Your task to perform on an android device: change keyboard looks Image 0: 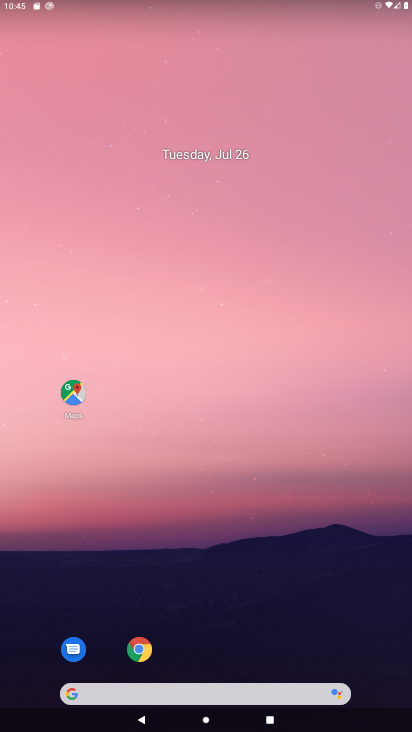
Step 0: drag from (209, 680) to (210, 148)
Your task to perform on an android device: change keyboard looks Image 1: 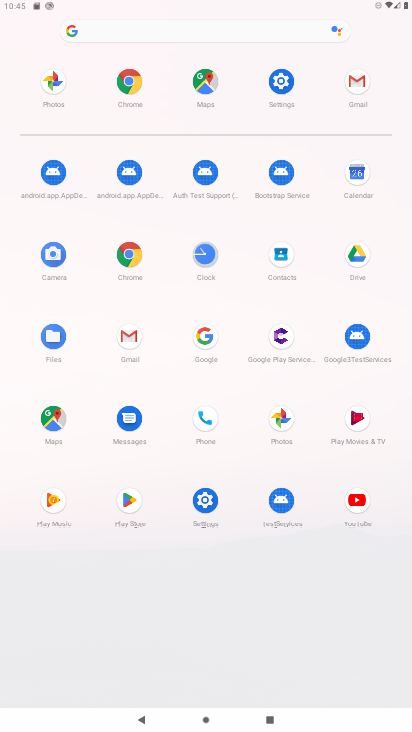
Step 1: click (275, 87)
Your task to perform on an android device: change keyboard looks Image 2: 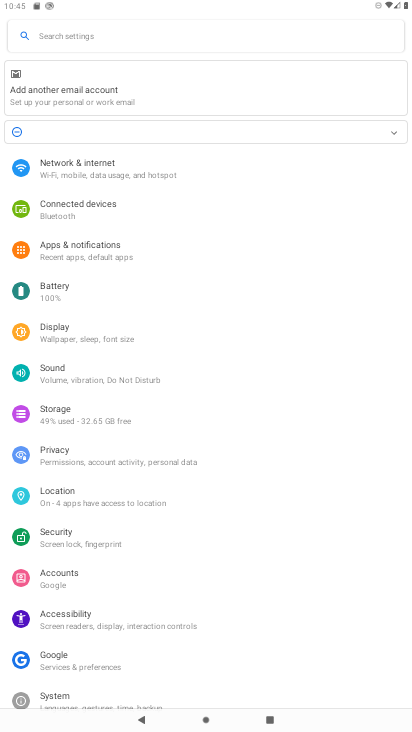
Step 2: drag from (86, 693) to (105, 235)
Your task to perform on an android device: change keyboard looks Image 3: 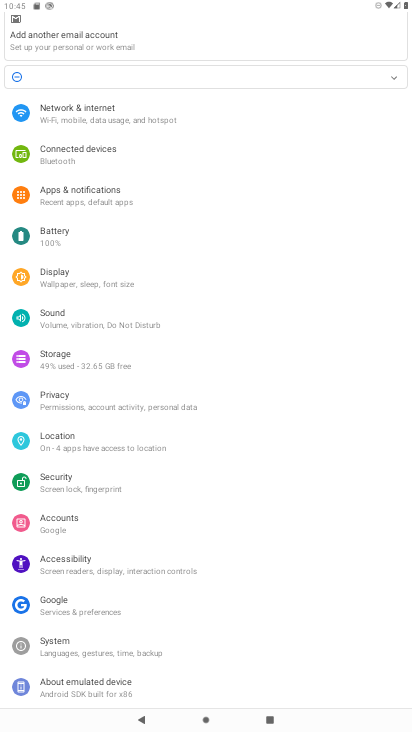
Step 3: click (70, 642)
Your task to perform on an android device: change keyboard looks Image 4: 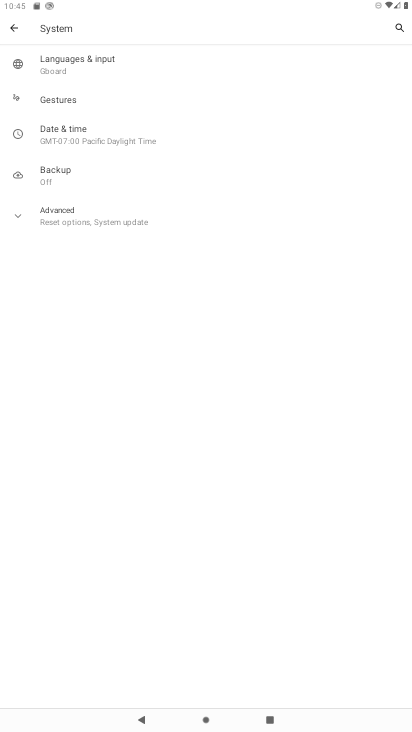
Step 4: click (56, 216)
Your task to perform on an android device: change keyboard looks Image 5: 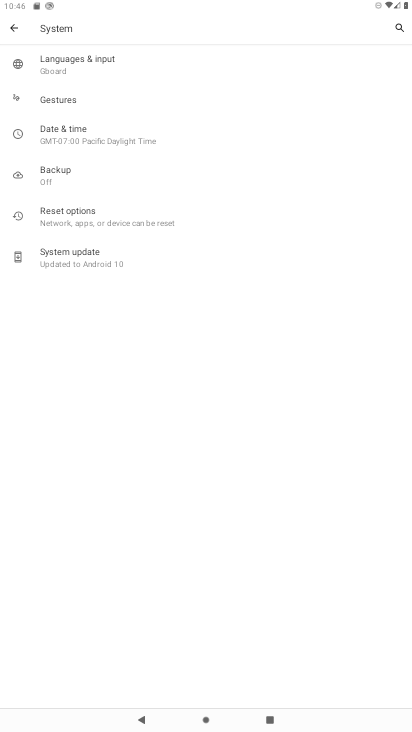
Step 5: click (49, 70)
Your task to perform on an android device: change keyboard looks Image 6: 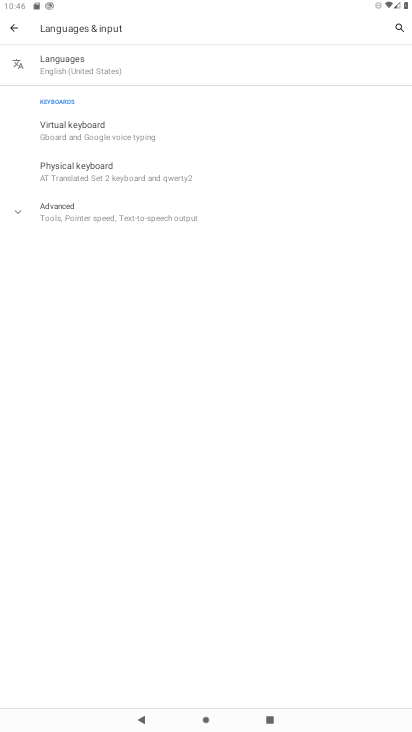
Step 6: click (88, 128)
Your task to perform on an android device: change keyboard looks Image 7: 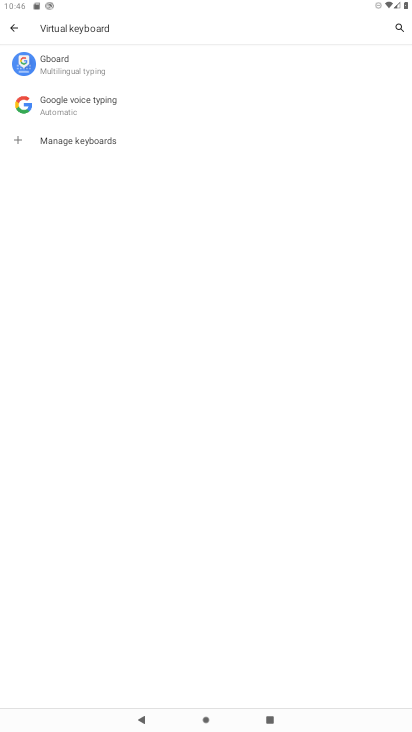
Step 7: click (55, 72)
Your task to perform on an android device: change keyboard looks Image 8: 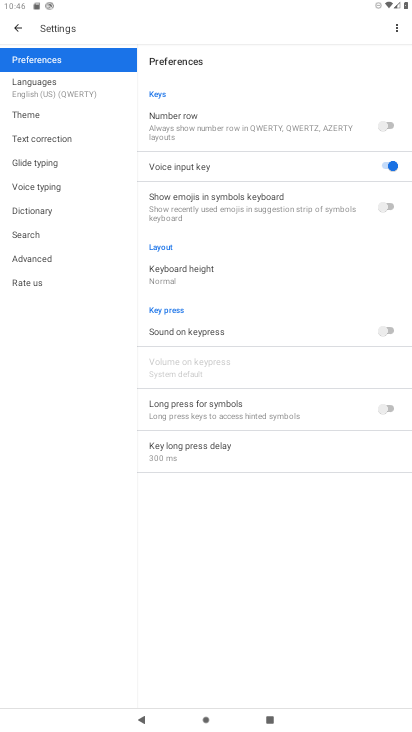
Step 8: click (31, 118)
Your task to perform on an android device: change keyboard looks Image 9: 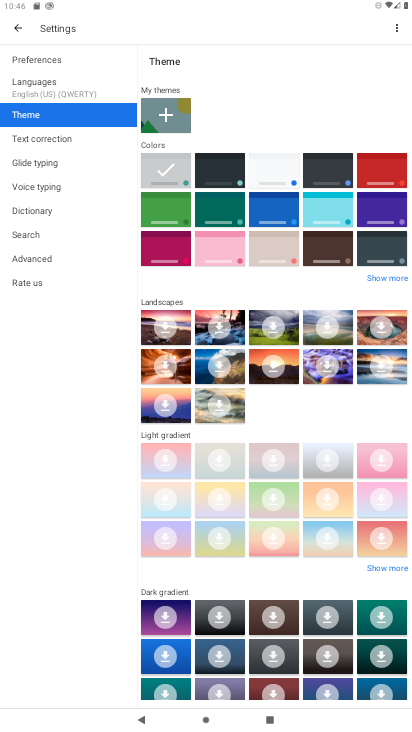
Step 9: click (339, 252)
Your task to perform on an android device: change keyboard looks Image 10: 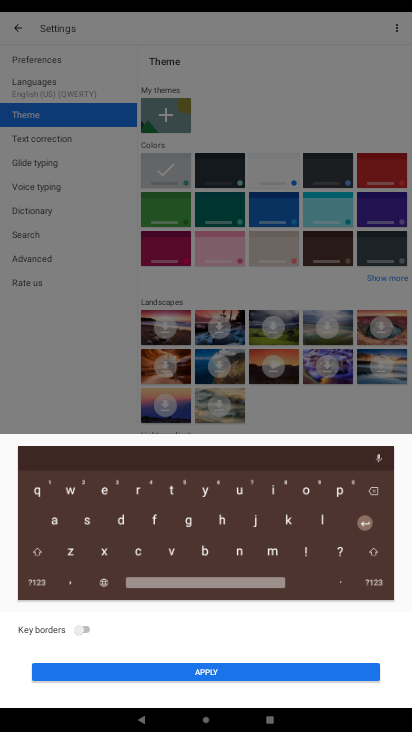
Step 10: click (200, 667)
Your task to perform on an android device: change keyboard looks Image 11: 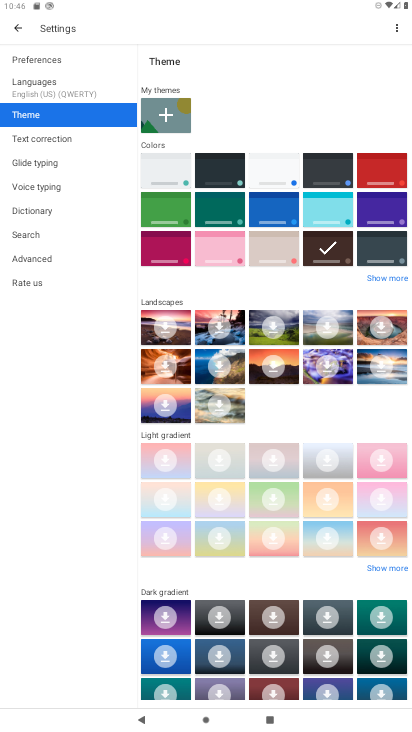
Step 11: task complete